Your task to perform on an android device: Do I have any events tomorrow? Image 0: 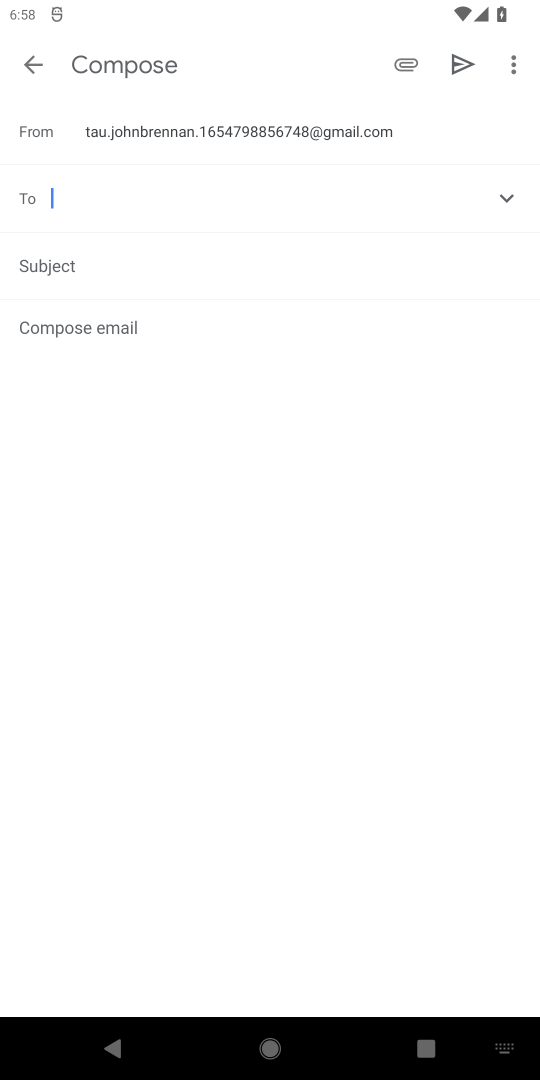
Step 0: press home button
Your task to perform on an android device: Do I have any events tomorrow? Image 1: 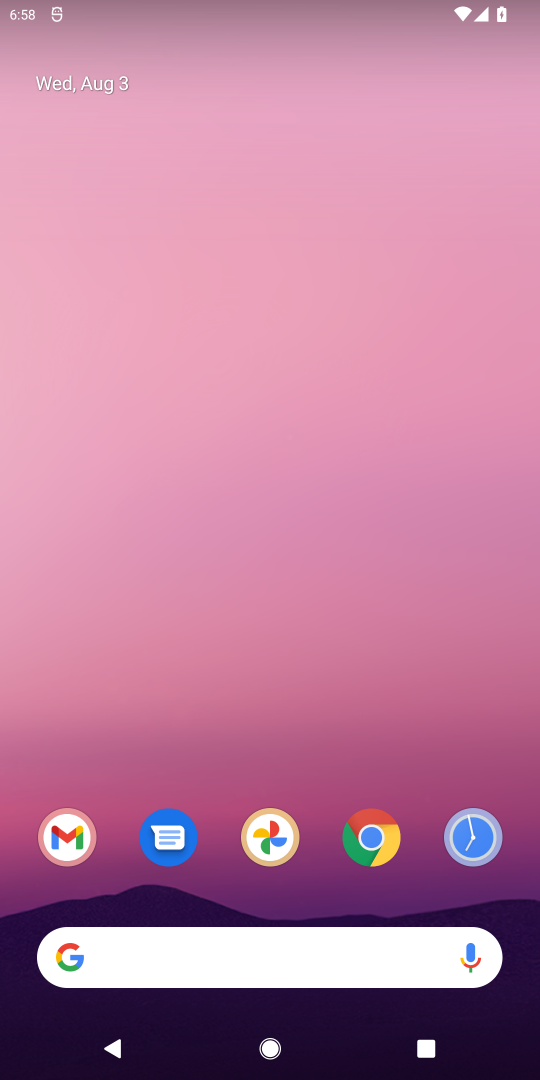
Step 1: drag from (270, 604) to (263, 68)
Your task to perform on an android device: Do I have any events tomorrow? Image 2: 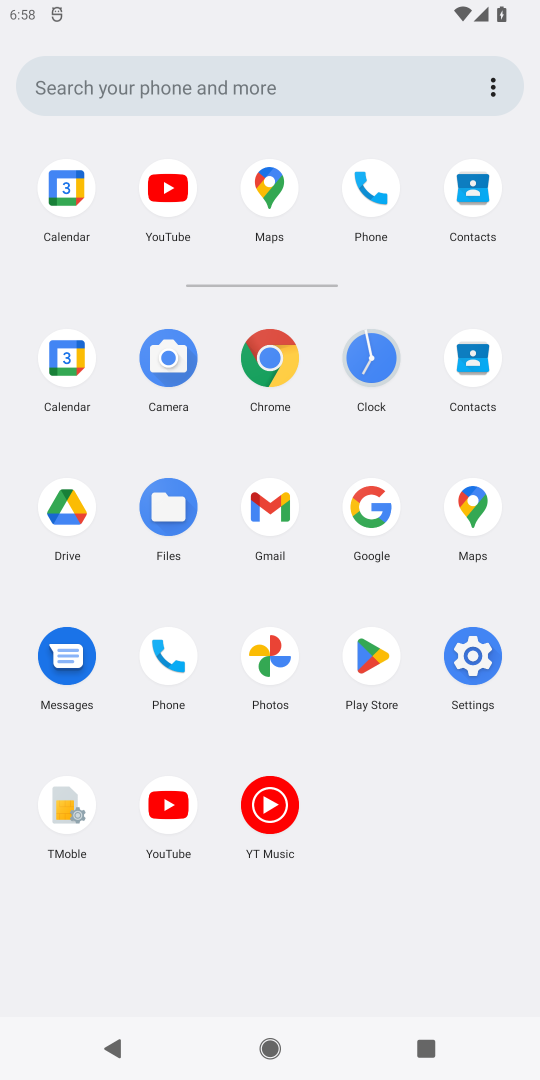
Step 2: click (51, 356)
Your task to perform on an android device: Do I have any events tomorrow? Image 3: 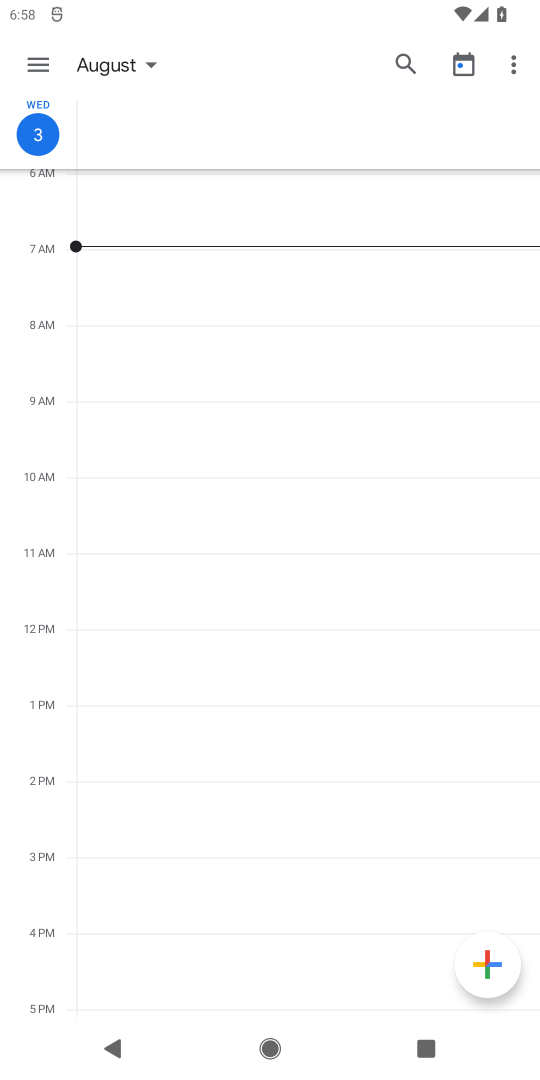
Step 3: task complete